Your task to perform on an android device: Show me popular videos on Youtube Image 0: 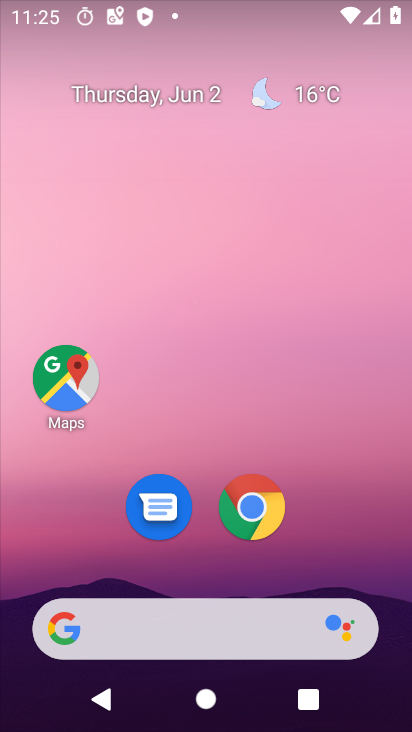
Step 0: drag from (393, 624) to (226, 34)
Your task to perform on an android device: Show me popular videos on Youtube Image 1: 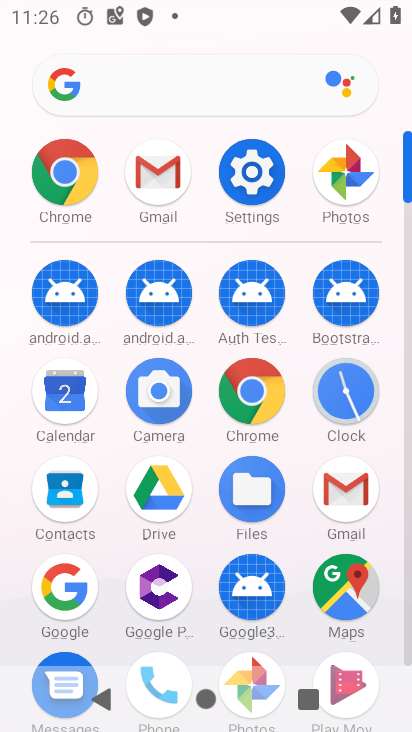
Step 1: drag from (302, 635) to (296, 272)
Your task to perform on an android device: Show me popular videos on Youtube Image 2: 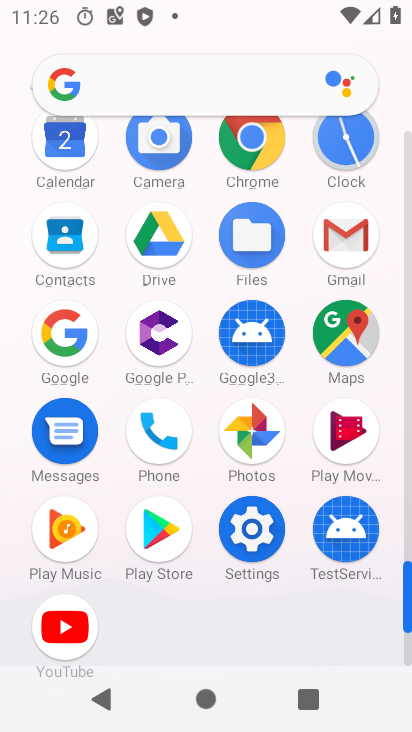
Step 2: click (62, 631)
Your task to perform on an android device: Show me popular videos on Youtube Image 3: 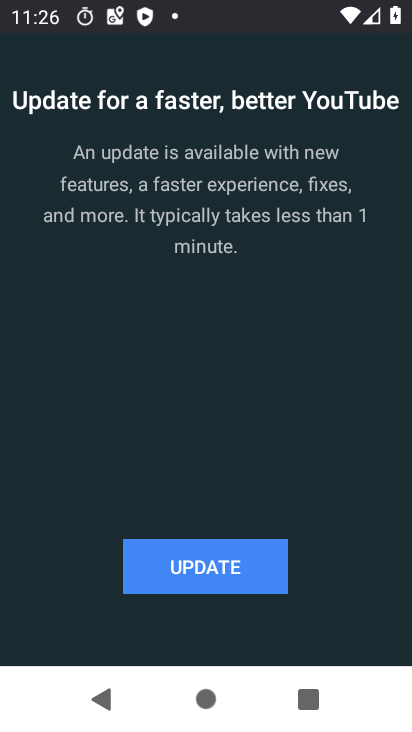
Step 3: click (172, 587)
Your task to perform on an android device: Show me popular videos on Youtube Image 4: 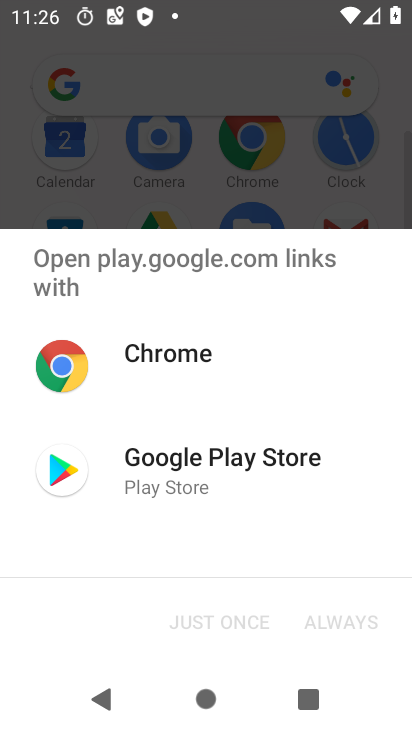
Step 4: click (121, 474)
Your task to perform on an android device: Show me popular videos on Youtube Image 5: 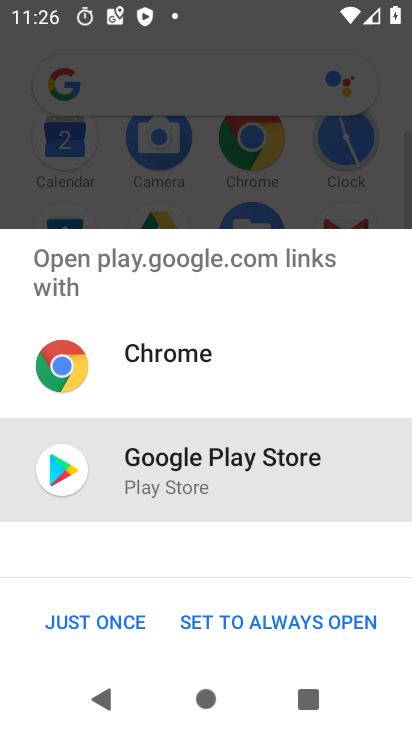
Step 5: click (98, 635)
Your task to perform on an android device: Show me popular videos on Youtube Image 6: 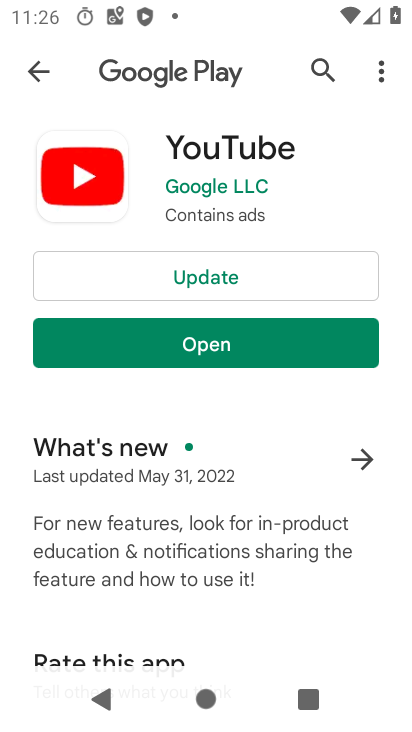
Step 6: click (289, 255)
Your task to perform on an android device: Show me popular videos on Youtube Image 7: 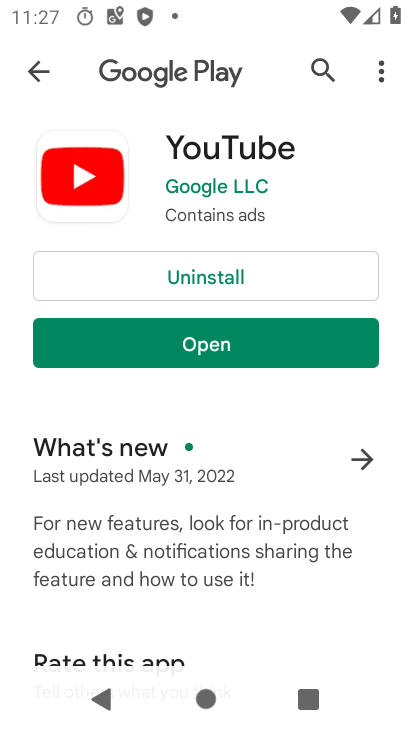
Step 7: click (207, 339)
Your task to perform on an android device: Show me popular videos on Youtube Image 8: 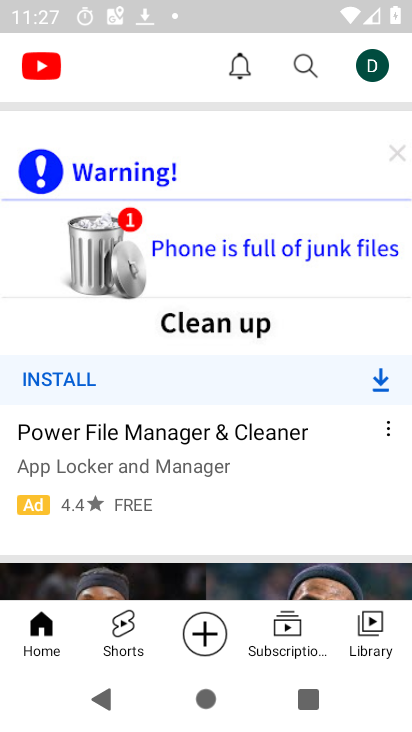
Step 8: task complete